Your task to perform on an android device: Open calendar and show me the fourth week of next month Image 0: 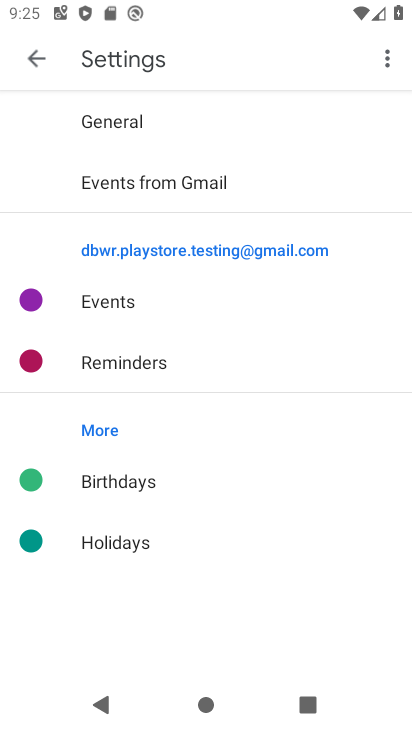
Step 0: press home button
Your task to perform on an android device: Open calendar and show me the fourth week of next month Image 1: 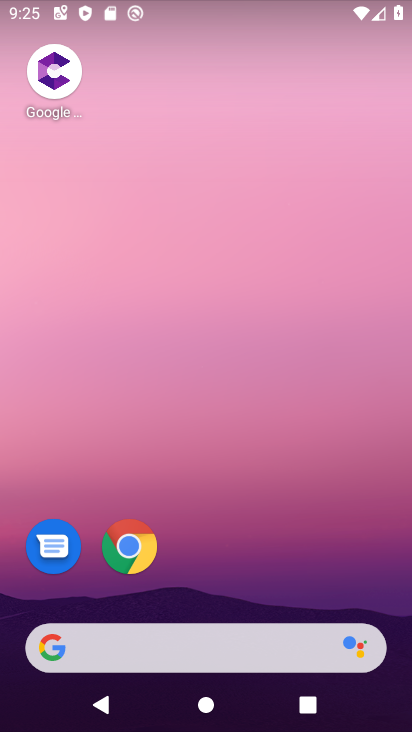
Step 1: drag from (393, 643) to (330, 193)
Your task to perform on an android device: Open calendar and show me the fourth week of next month Image 2: 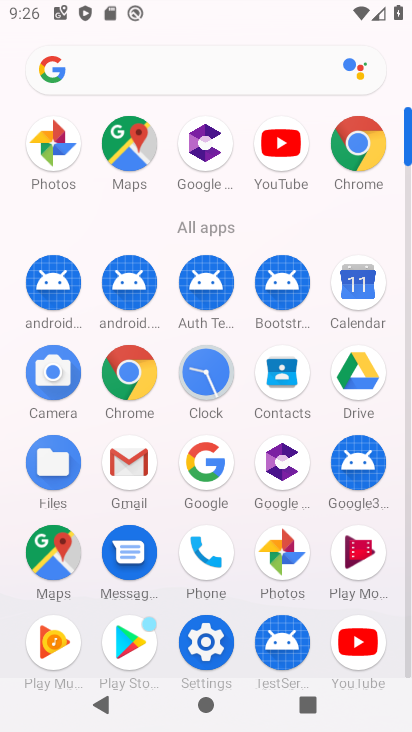
Step 2: click (352, 301)
Your task to perform on an android device: Open calendar and show me the fourth week of next month Image 3: 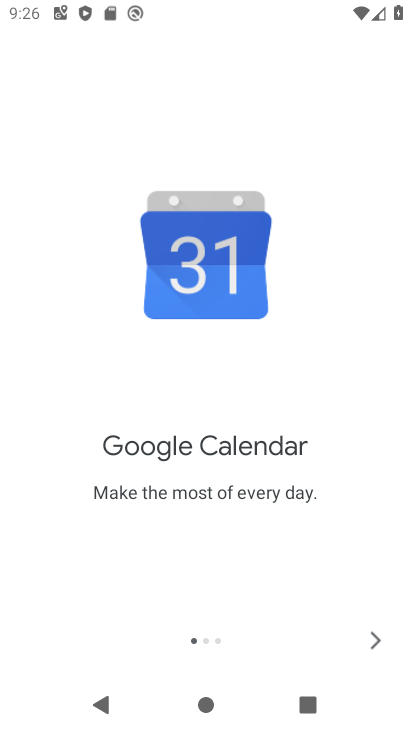
Step 3: click (384, 644)
Your task to perform on an android device: Open calendar and show me the fourth week of next month Image 4: 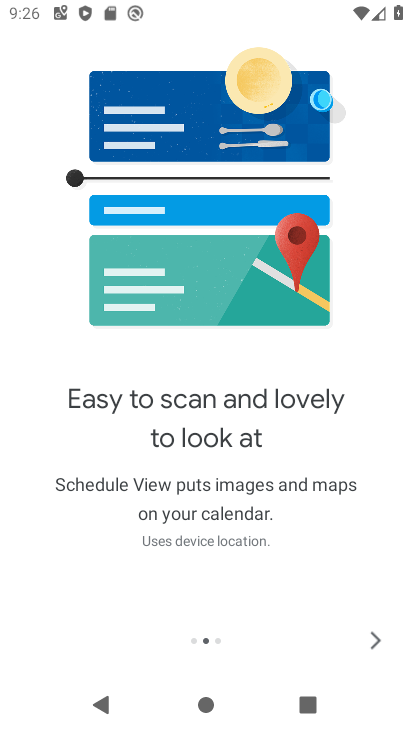
Step 4: click (384, 644)
Your task to perform on an android device: Open calendar and show me the fourth week of next month Image 5: 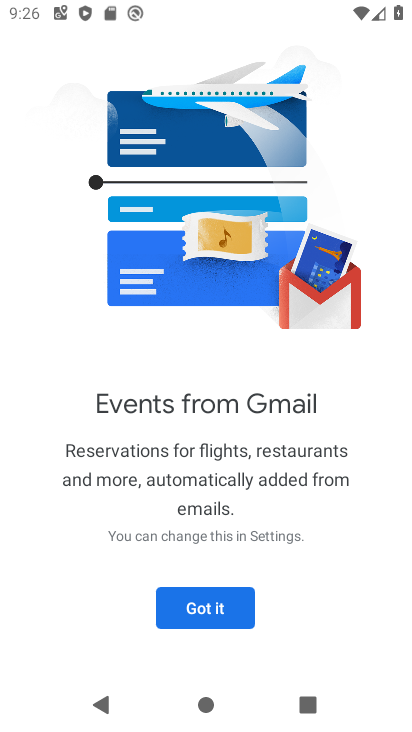
Step 5: click (230, 601)
Your task to perform on an android device: Open calendar and show me the fourth week of next month Image 6: 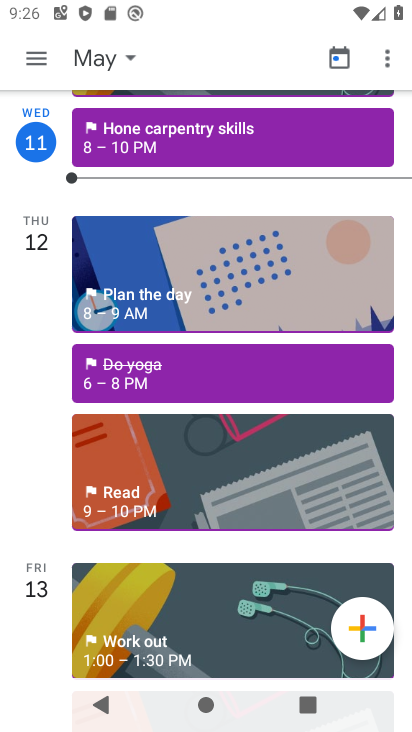
Step 6: click (90, 65)
Your task to perform on an android device: Open calendar and show me the fourth week of next month Image 7: 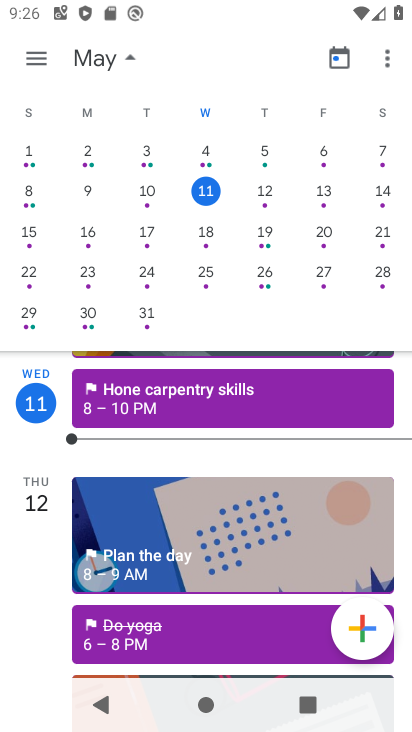
Step 7: drag from (346, 277) to (48, 239)
Your task to perform on an android device: Open calendar and show me the fourth week of next month Image 8: 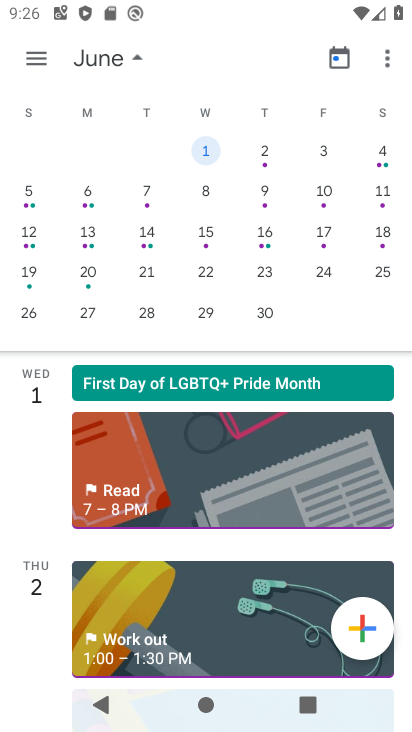
Step 8: click (92, 315)
Your task to perform on an android device: Open calendar and show me the fourth week of next month Image 9: 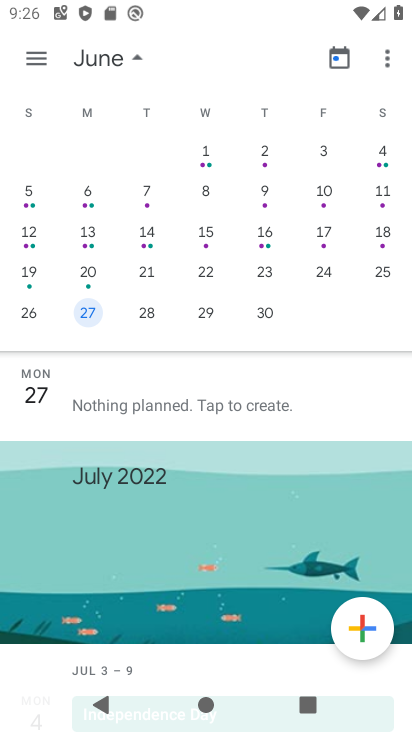
Step 9: task complete